Your task to perform on an android device: turn off location history Image 0: 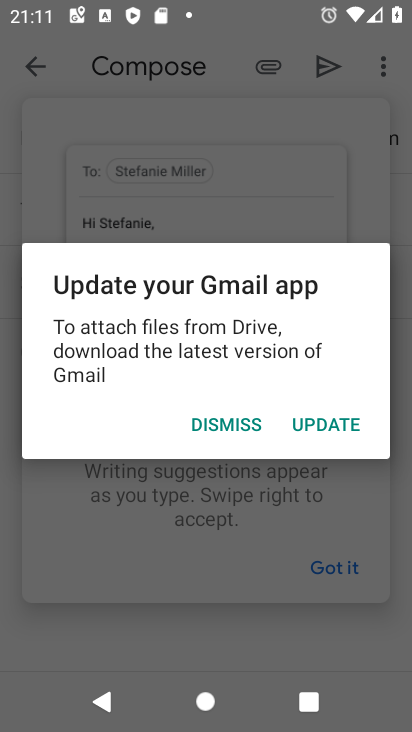
Step 0: press home button
Your task to perform on an android device: turn off location history Image 1: 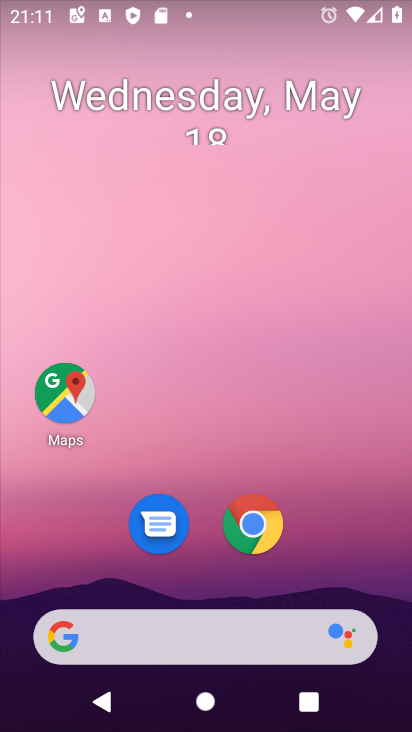
Step 1: drag from (200, 440) to (192, 76)
Your task to perform on an android device: turn off location history Image 2: 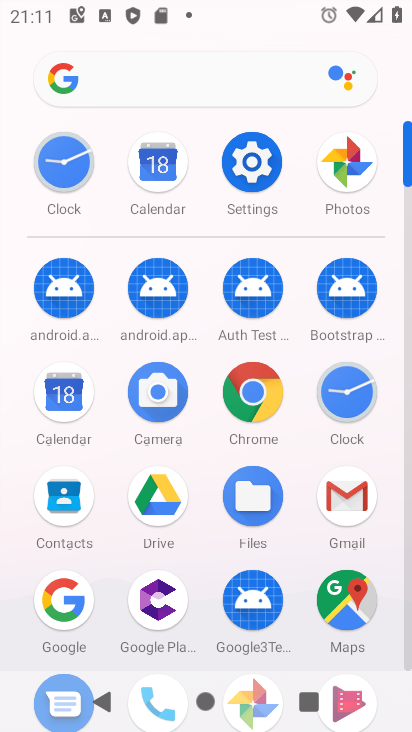
Step 2: click (261, 169)
Your task to perform on an android device: turn off location history Image 3: 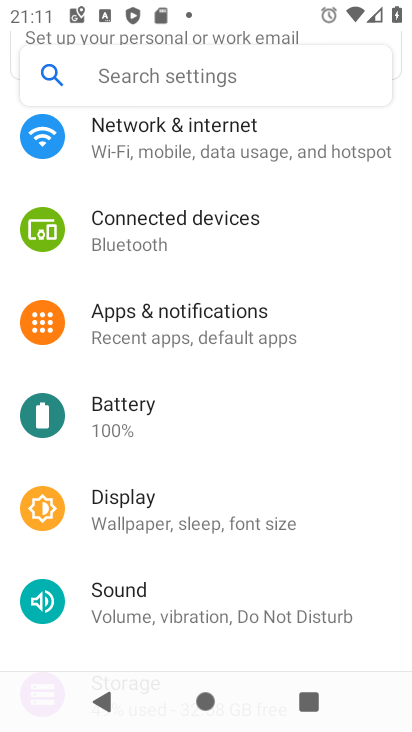
Step 3: click (202, 141)
Your task to perform on an android device: turn off location history Image 4: 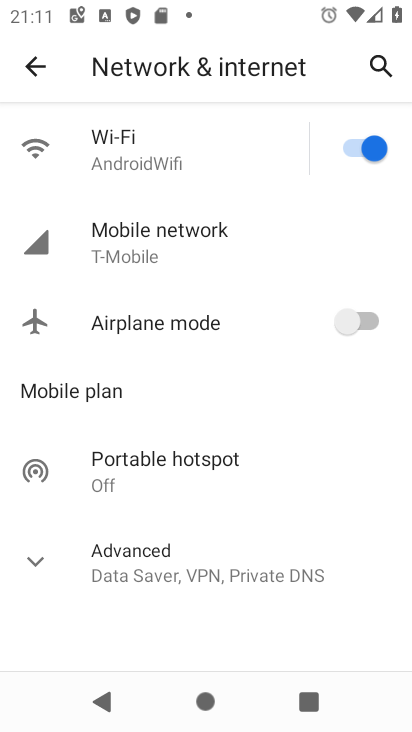
Step 4: click (38, 60)
Your task to perform on an android device: turn off location history Image 5: 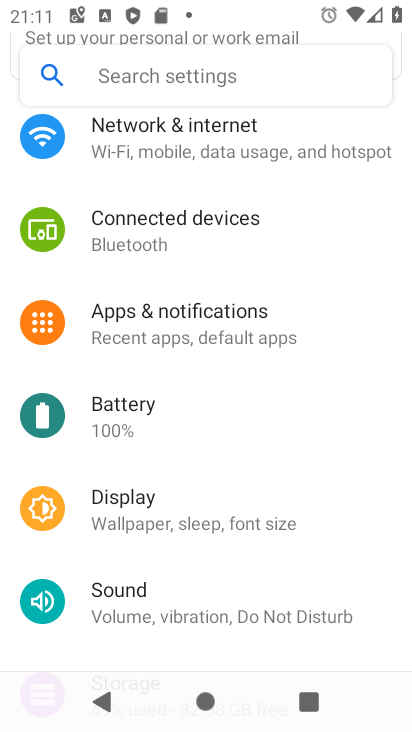
Step 5: drag from (194, 546) to (183, 116)
Your task to perform on an android device: turn off location history Image 6: 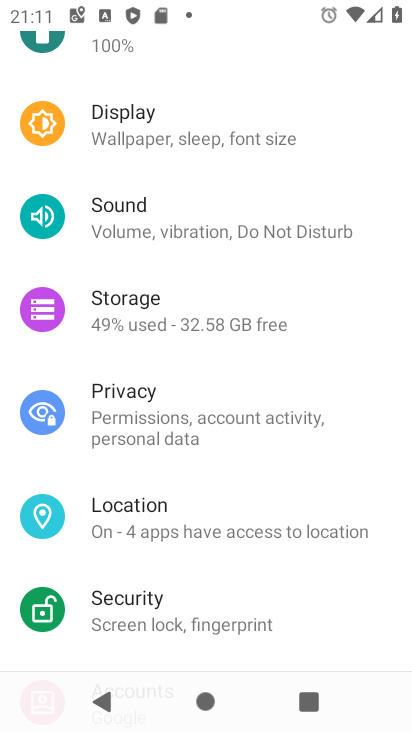
Step 6: click (199, 519)
Your task to perform on an android device: turn off location history Image 7: 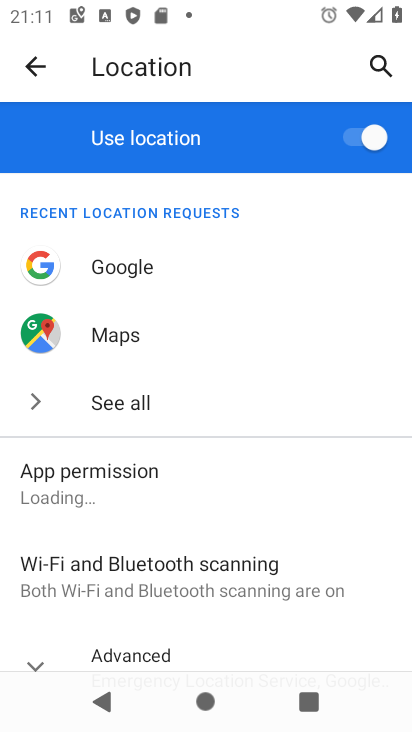
Step 7: drag from (199, 519) to (191, 354)
Your task to perform on an android device: turn off location history Image 8: 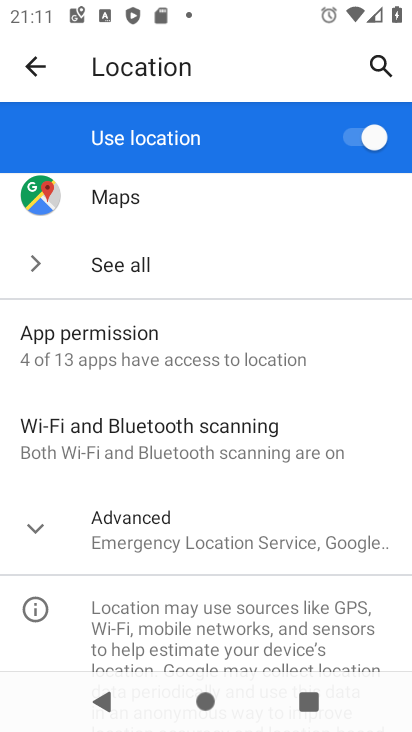
Step 8: click (32, 528)
Your task to perform on an android device: turn off location history Image 9: 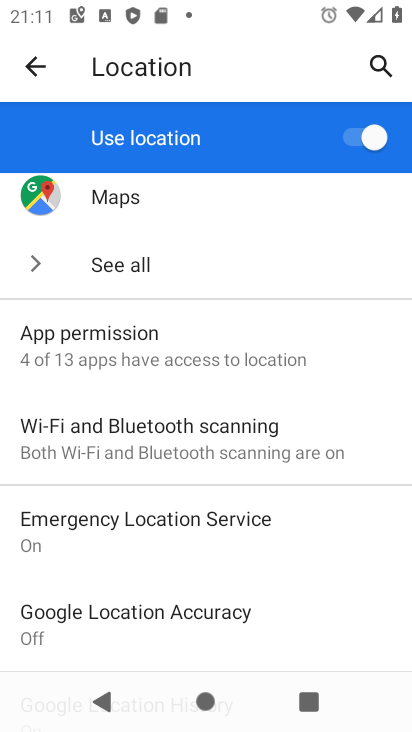
Step 9: drag from (236, 571) to (241, 362)
Your task to perform on an android device: turn off location history Image 10: 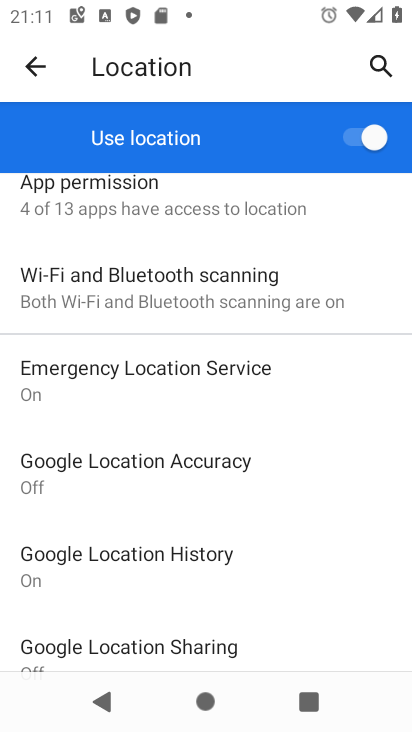
Step 10: click (198, 550)
Your task to perform on an android device: turn off location history Image 11: 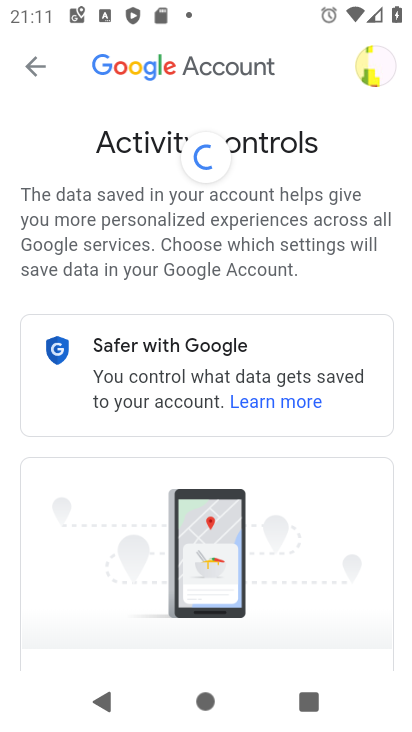
Step 11: drag from (333, 533) to (322, 185)
Your task to perform on an android device: turn off location history Image 12: 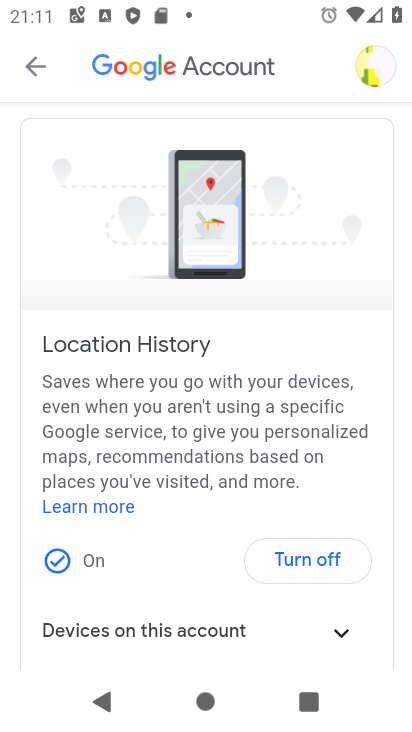
Step 12: click (300, 548)
Your task to perform on an android device: turn off location history Image 13: 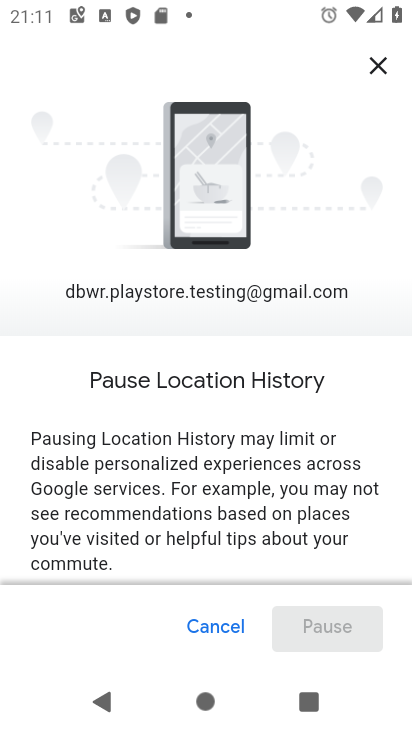
Step 13: click (322, 626)
Your task to perform on an android device: turn off location history Image 14: 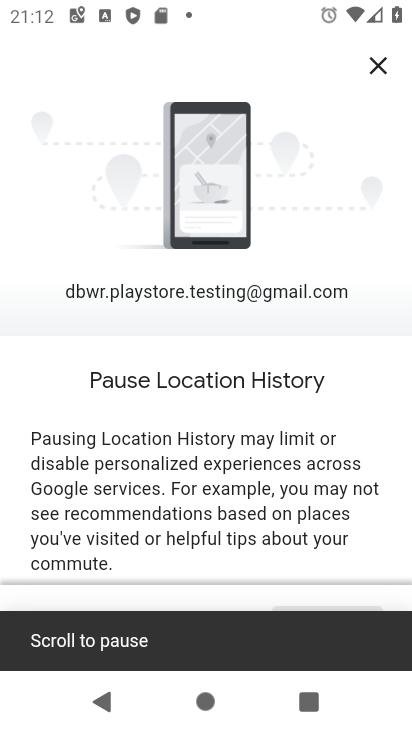
Step 14: drag from (304, 544) to (292, 269)
Your task to perform on an android device: turn off location history Image 15: 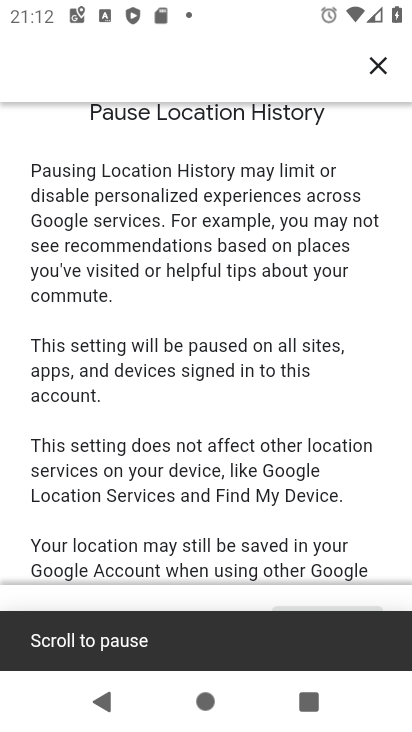
Step 15: drag from (238, 510) to (202, 151)
Your task to perform on an android device: turn off location history Image 16: 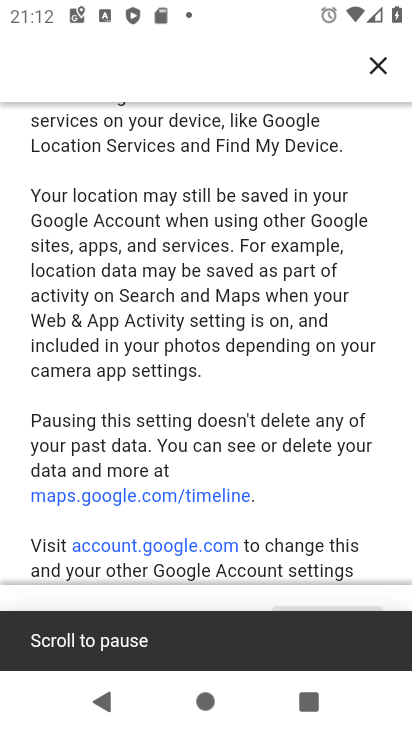
Step 16: drag from (229, 457) to (229, 155)
Your task to perform on an android device: turn off location history Image 17: 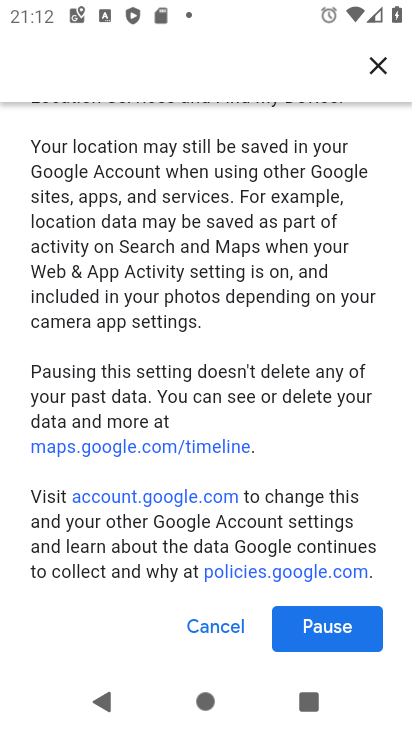
Step 17: click (328, 624)
Your task to perform on an android device: turn off location history Image 18: 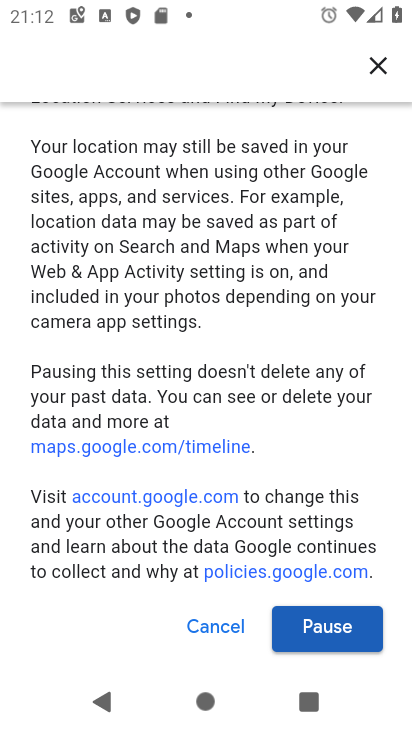
Step 18: click (328, 624)
Your task to perform on an android device: turn off location history Image 19: 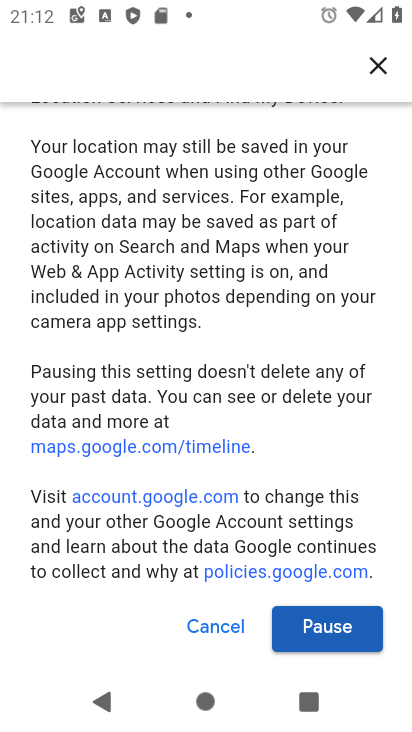
Step 19: click (328, 624)
Your task to perform on an android device: turn off location history Image 20: 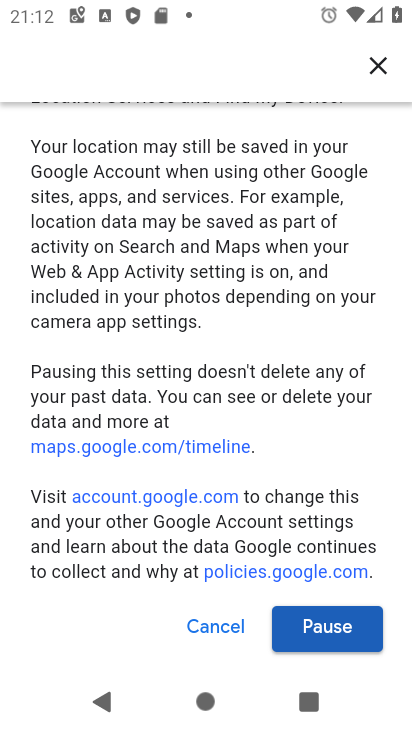
Step 20: click (347, 622)
Your task to perform on an android device: turn off location history Image 21: 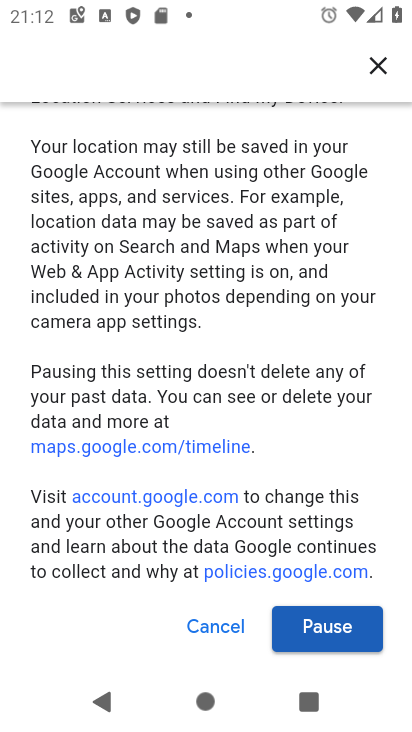
Step 21: click (347, 622)
Your task to perform on an android device: turn off location history Image 22: 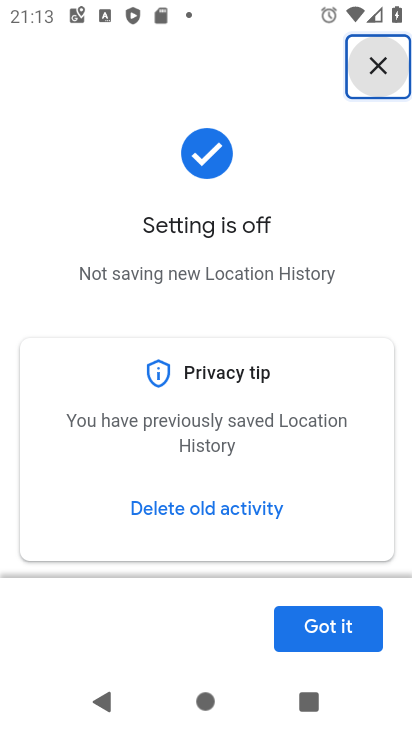
Step 22: click (337, 626)
Your task to perform on an android device: turn off location history Image 23: 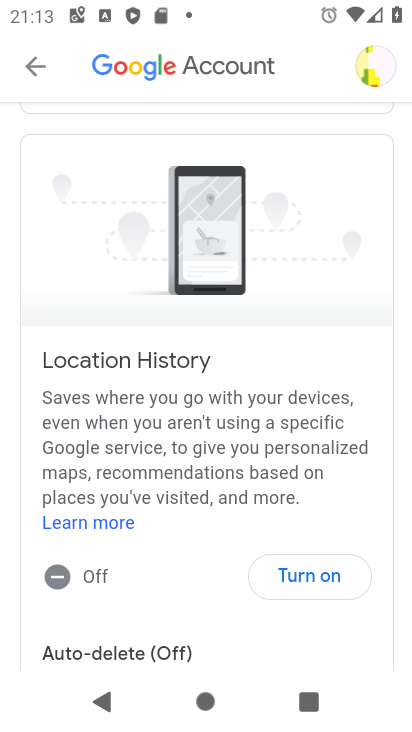
Step 23: task complete